Your task to perform on an android device: Check the weather Image 0: 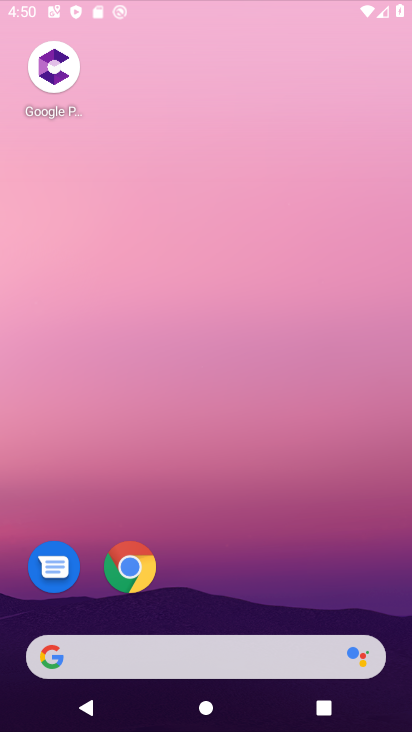
Step 0: click (277, 179)
Your task to perform on an android device: Check the weather Image 1: 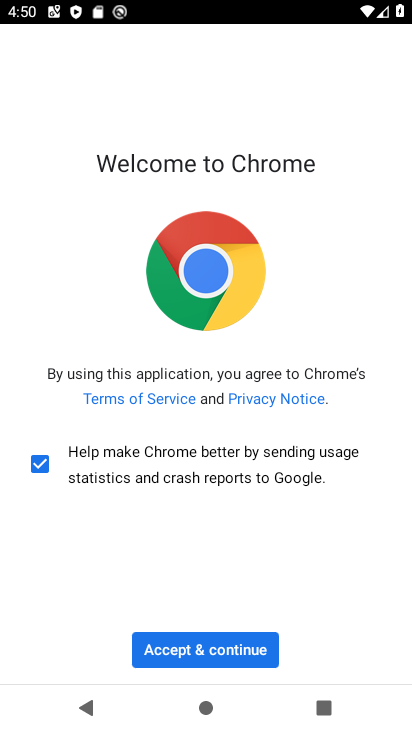
Step 1: press home button
Your task to perform on an android device: Check the weather Image 2: 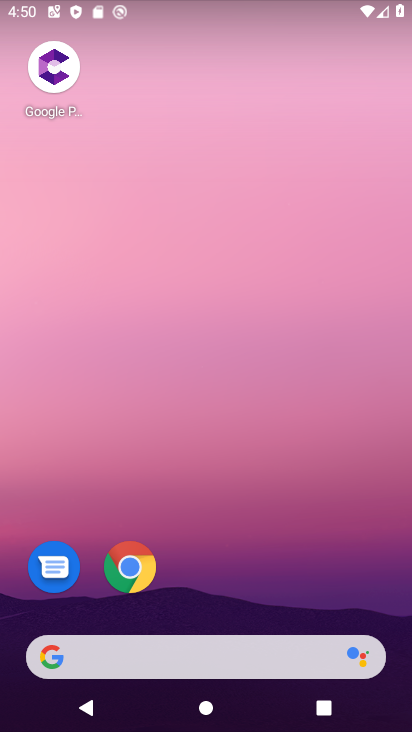
Step 2: click (131, 569)
Your task to perform on an android device: Check the weather Image 3: 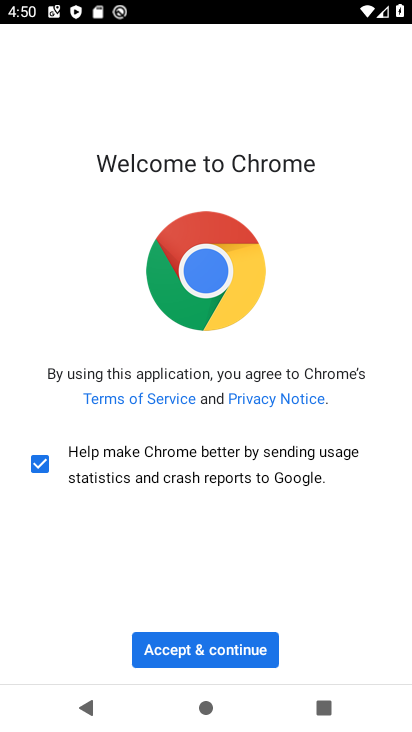
Step 3: click (244, 647)
Your task to perform on an android device: Check the weather Image 4: 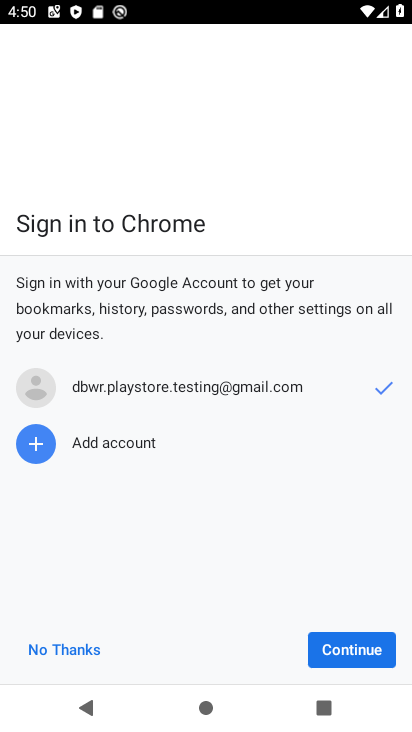
Step 4: click (373, 645)
Your task to perform on an android device: Check the weather Image 5: 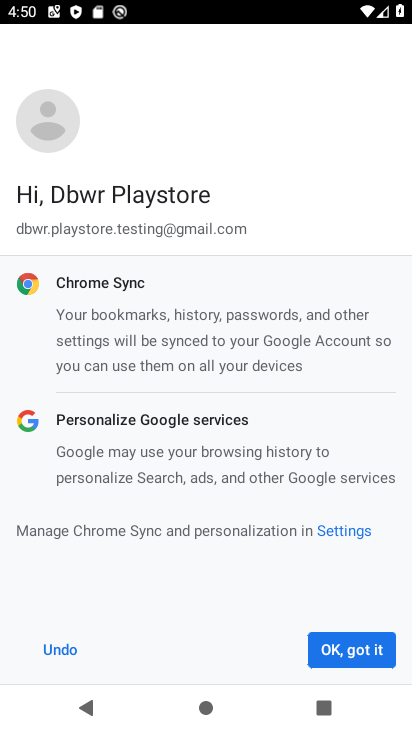
Step 5: click (373, 645)
Your task to perform on an android device: Check the weather Image 6: 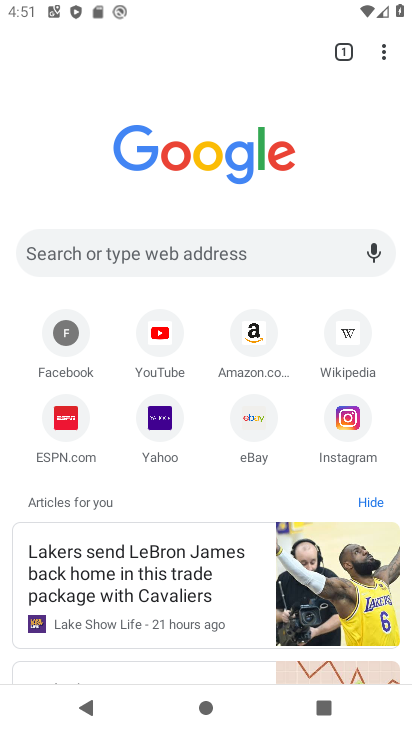
Step 6: click (171, 252)
Your task to perform on an android device: Check the weather Image 7: 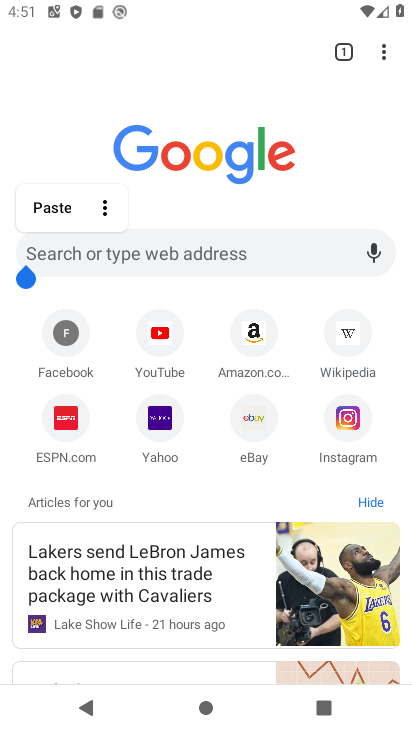
Step 7: click (171, 252)
Your task to perform on an android device: Check the weather Image 8: 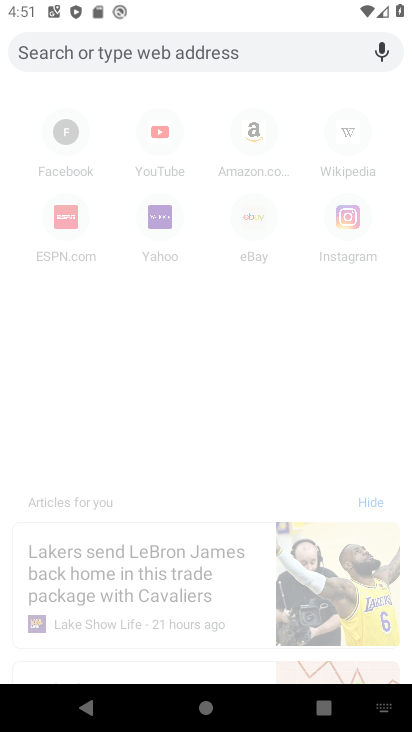
Step 8: type ""
Your task to perform on an android device: Check the weather Image 9: 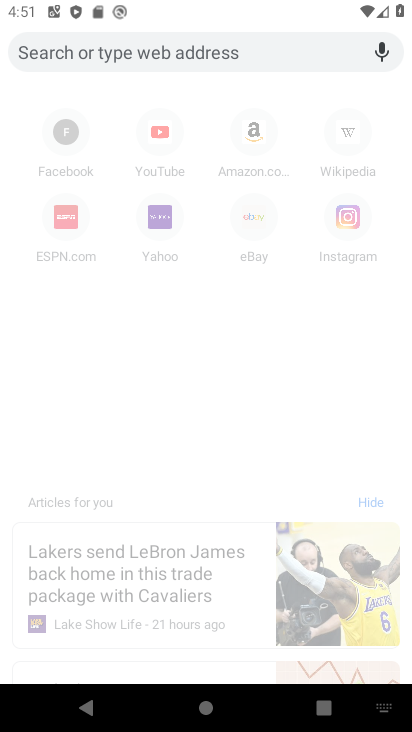
Step 9: type "Check the weather"
Your task to perform on an android device: Check the weather Image 10: 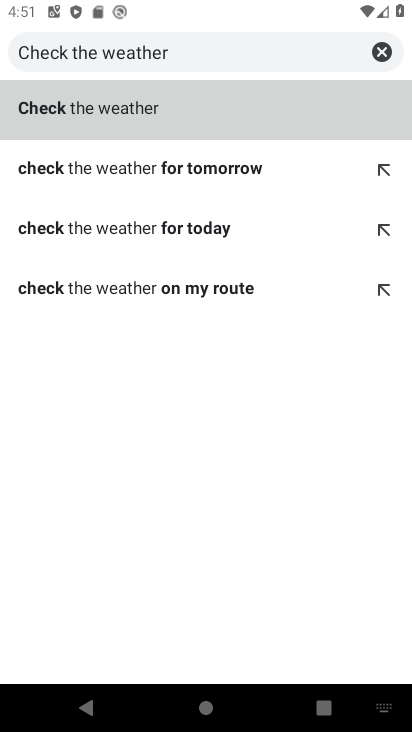
Step 10: click (100, 43)
Your task to perform on an android device: Check the weather Image 11: 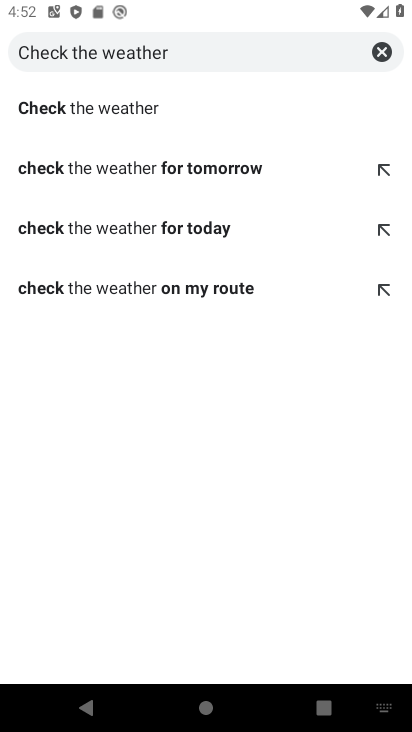
Step 11: type ""
Your task to perform on an android device: Check the weather Image 12: 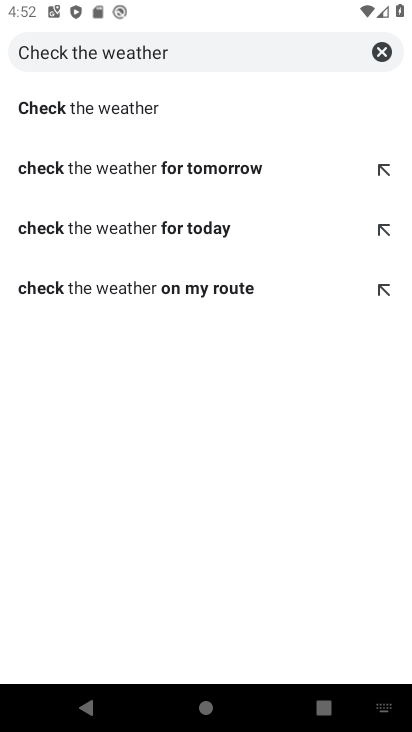
Step 12: click (387, 49)
Your task to perform on an android device: Check the weather Image 13: 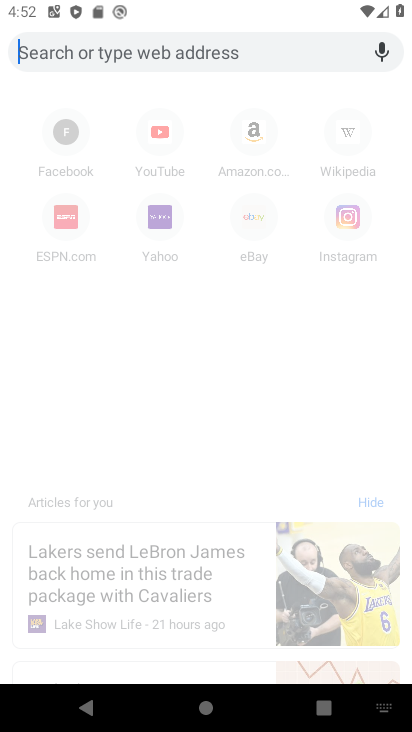
Step 13: type "weather"
Your task to perform on an android device: Check the weather Image 14: 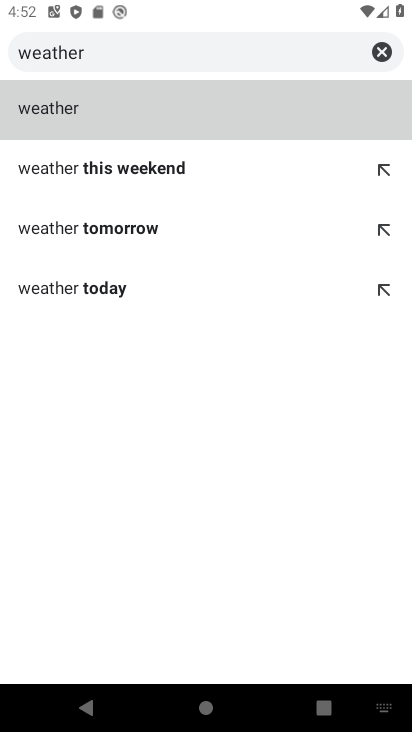
Step 14: click (57, 96)
Your task to perform on an android device: Check the weather Image 15: 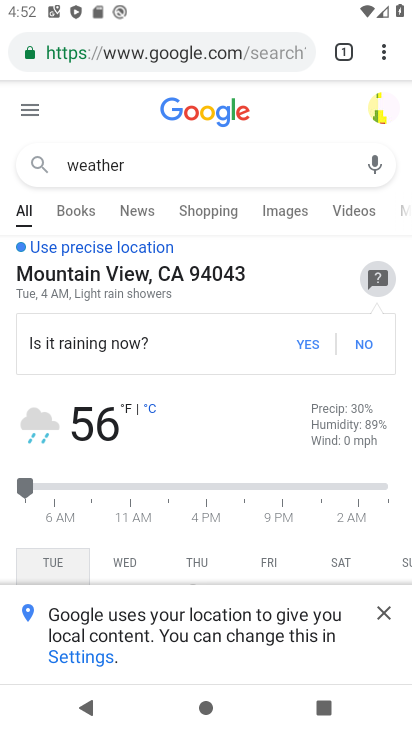
Step 15: task complete